Your task to perform on an android device: Go to settings Image 0: 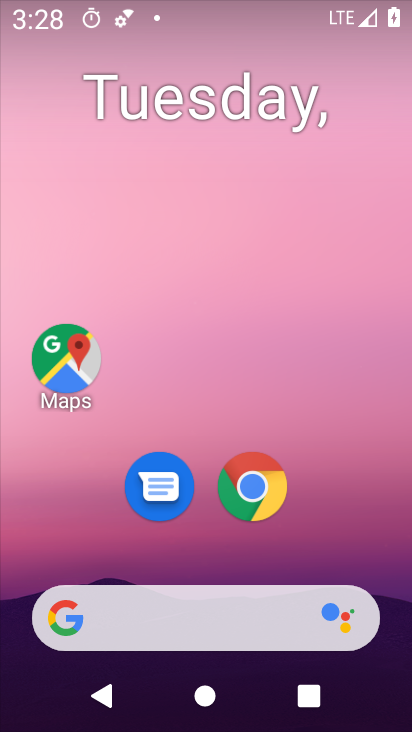
Step 0: press home button
Your task to perform on an android device: Go to settings Image 1: 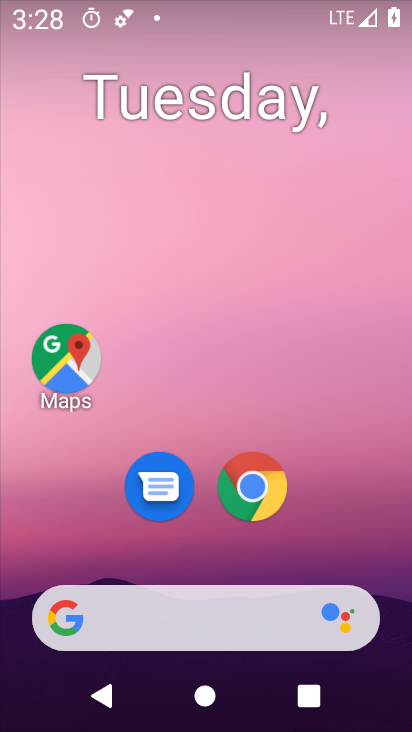
Step 1: drag from (364, 542) to (379, 81)
Your task to perform on an android device: Go to settings Image 2: 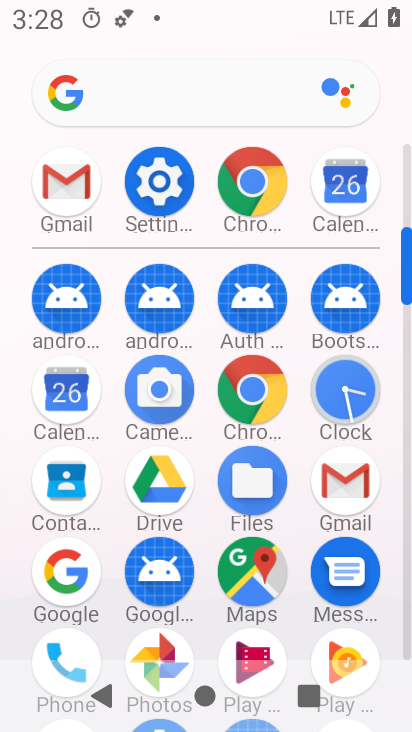
Step 2: click (168, 190)
Your task to perform on an android device: Go to settings Image 3: 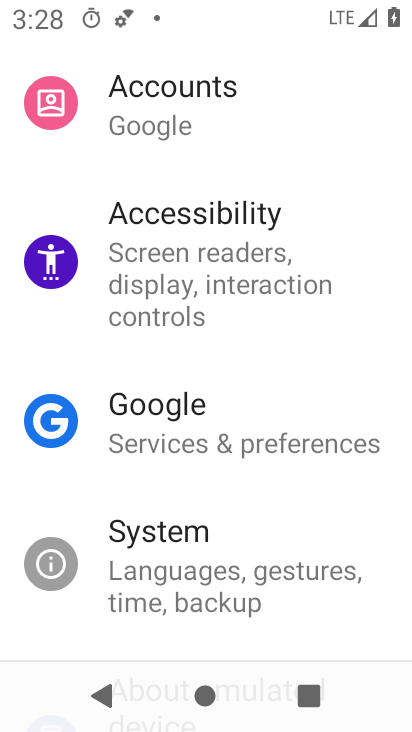
Step 3: task complete